Your task to perform on an android device: turn off wifi Image 0: 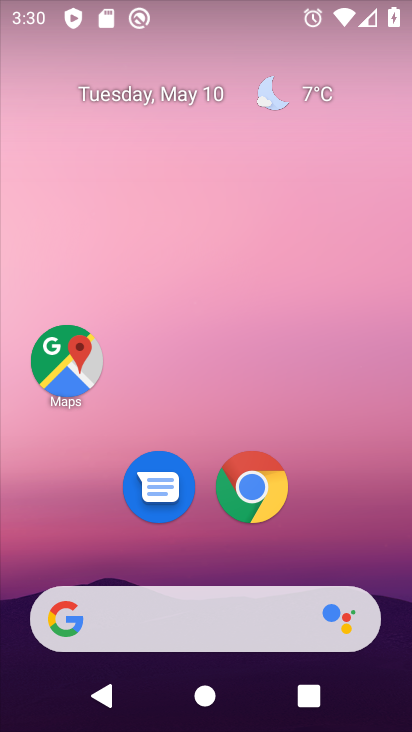
Step 0: drag from (355, 477) to (324, 102)
Your task to perform on an android device: turn off wifi Image 1: 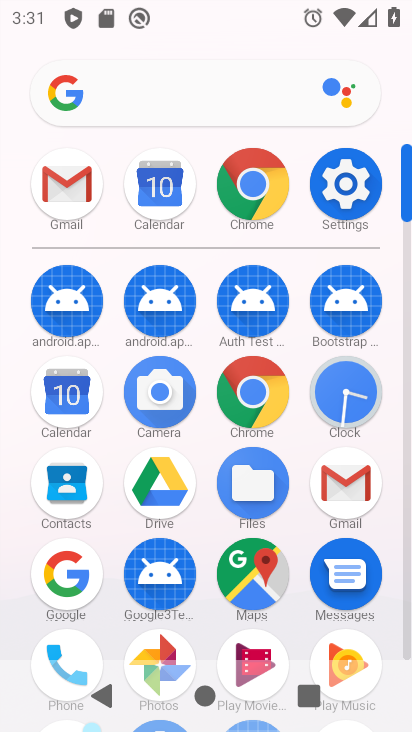
Step 1: click (368, 164)
Your task to perform on an android device: turn off wifi Image 2: 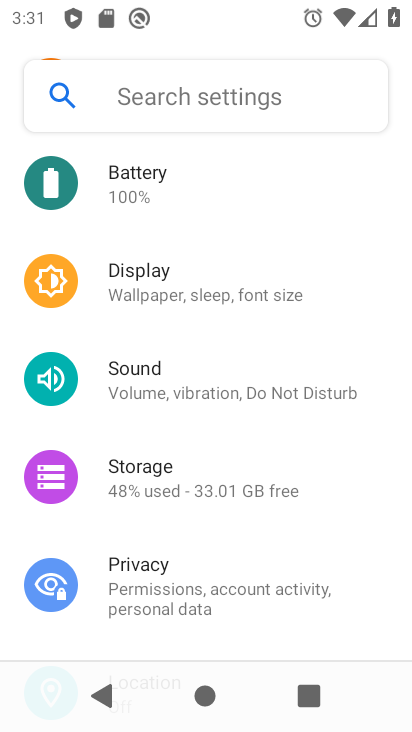
Step 2: drag from (227, 177) to (232, 618)
Your task to perform on an android device: turn off wifi Image 3: 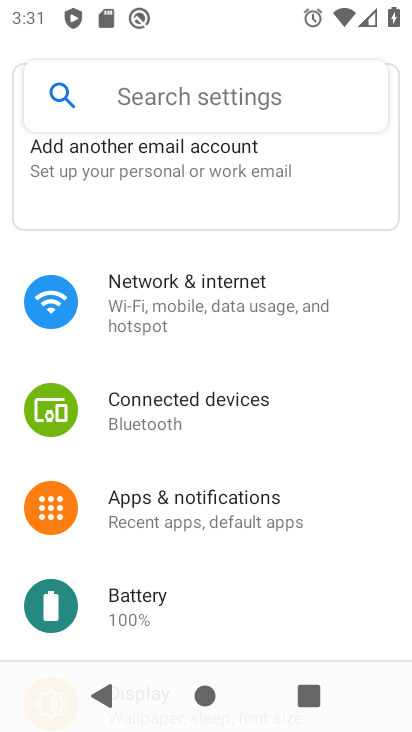
Step 3: click (217, 314)
Your task to perform on an android device: turn off wifi Image 4: 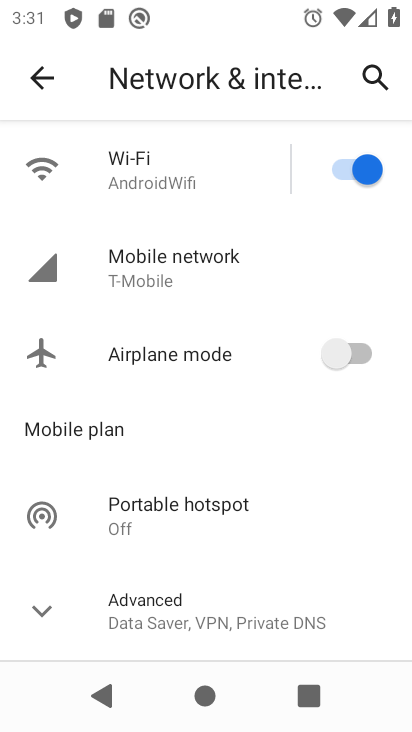
Step 4: click (352, 165)
Your task to perform on an android device: turn off wifi Image 5: 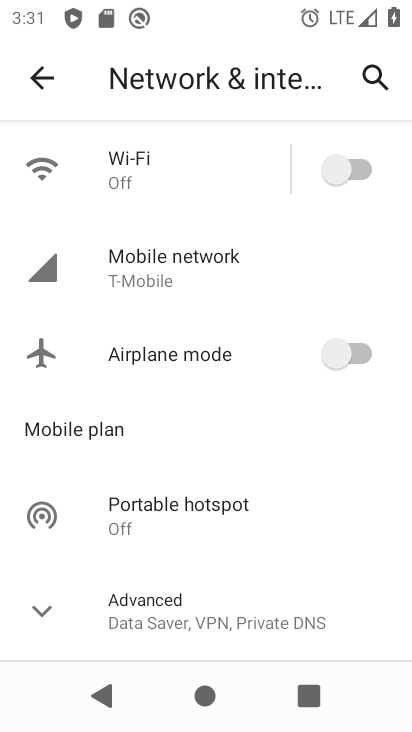
Step 5: task complete